Your task to perform on an android device: see tabs open on other devices in the chrome app Image 0: 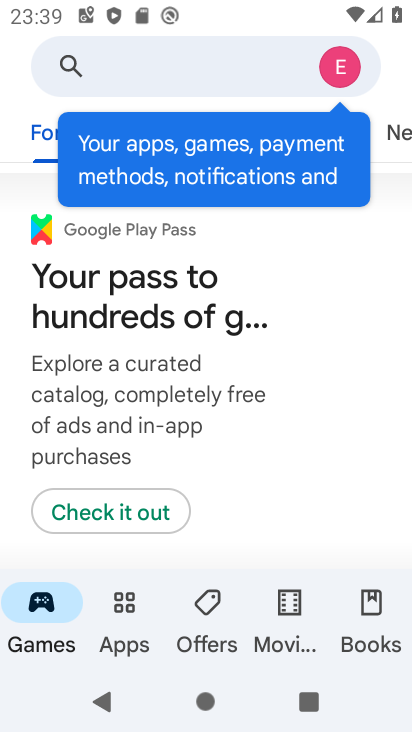
Step 0: press home button
Your task to perform on an android device: see tabs open on other devices in the chrome app Image 1: 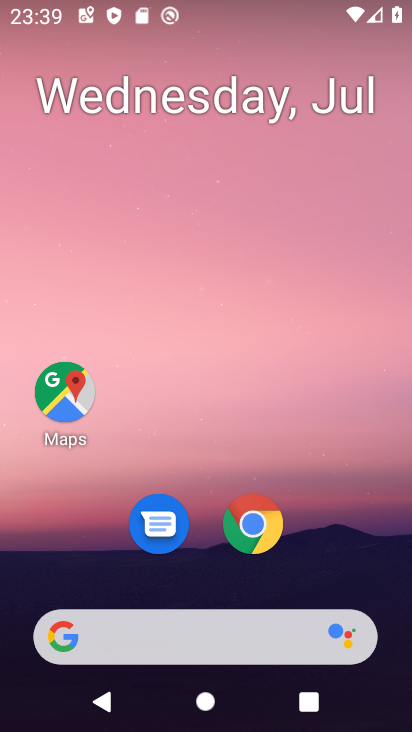
Step 1: click (252, 516)
Your task to perform on an android device: see tabs open on other devices in the chrome app Image 2: 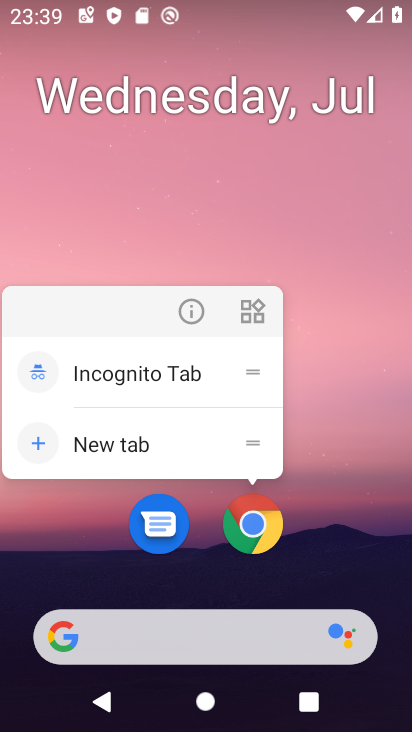
Step 2: click (250, 518)
Your task to perform on an android device: see tabs open on other devices in the chrome app Image 3: 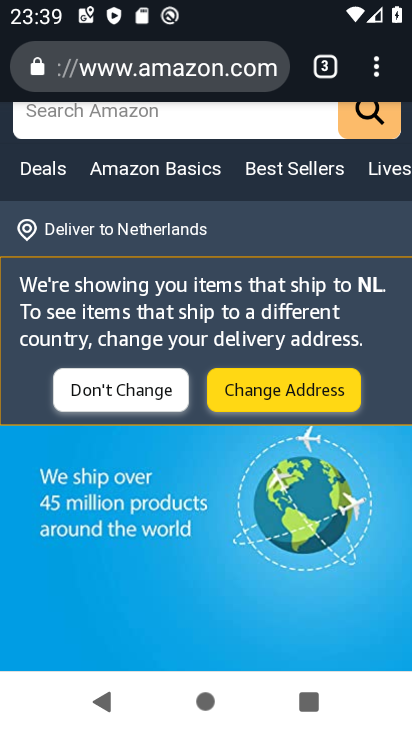
Step 3: task complete